Your task to perform on an android device: Check the weather Image 0: 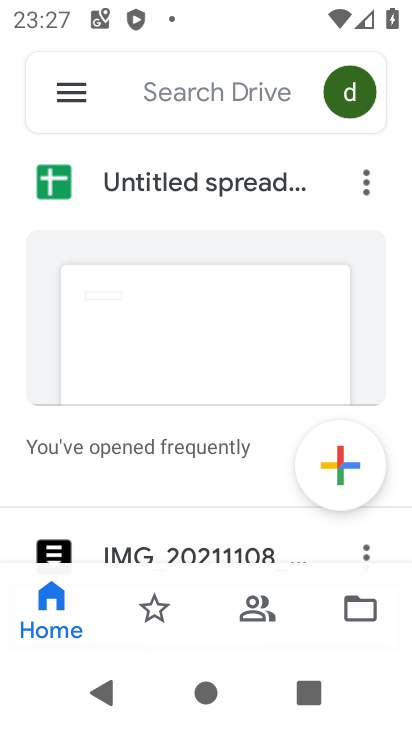
Step 0: press home button
Your task to perform on an android device: Check the weather Image 1: 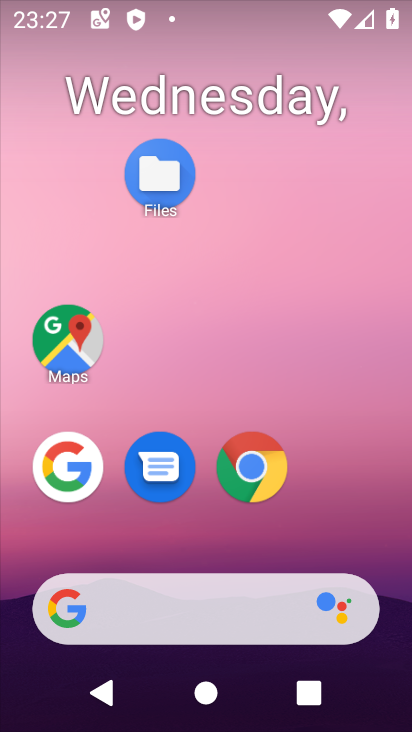
Step 1: click (169, 608)
Your task to perform on an android device: Check the weather Image 2: 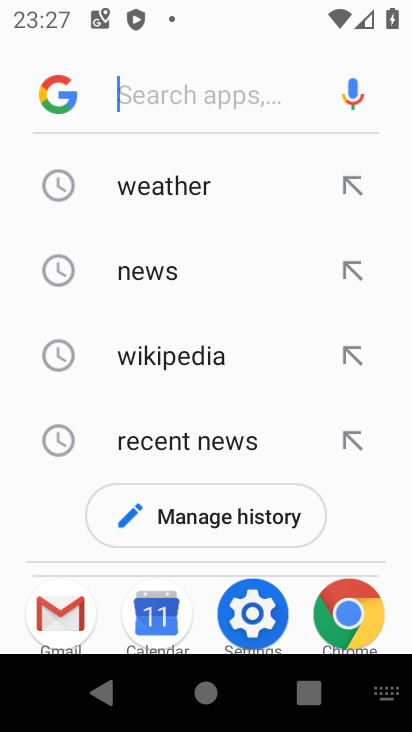
Step 2: click (172, 188)
Your task to perform on an android device: Check the weather Image 3: 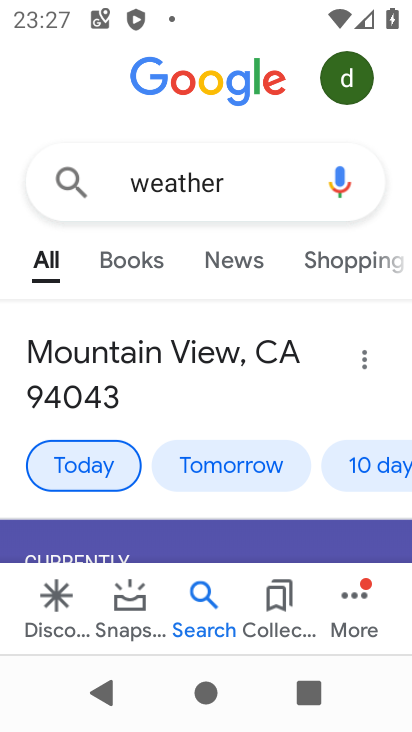
Step 3: task complete